Your task to perform on an android device: Open calendar and show me the fourth week of next month Image 0: 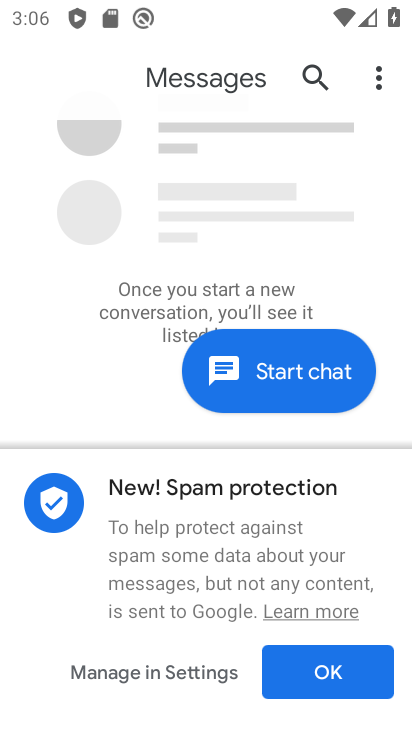
Step 0: press home button
Your task to perform on an android device: Open calendar and show me the fourth week of next month Image 1: 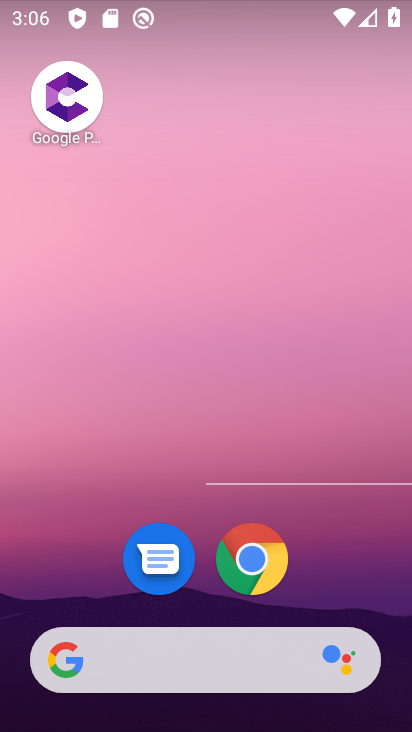
Step 1: drag from (214, 708) to (215, 168)
Your task to perform on an android device: Open calendar and show me the fourth week of next month Image 2: 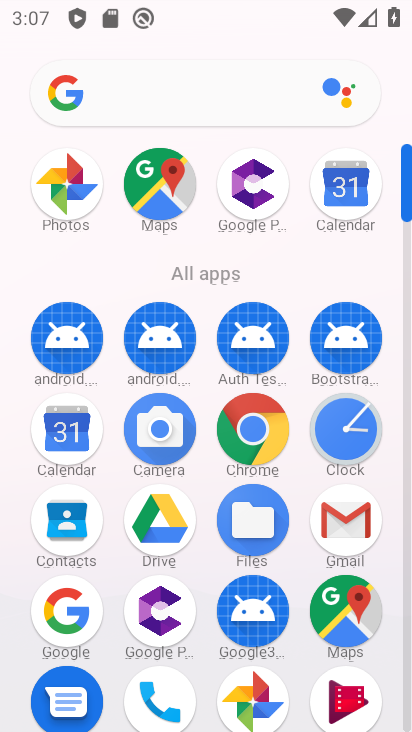
Step 2: click (71, 445)
Your task to perform on an android device: Open calendar and show me the fourth week of next month Image 3: 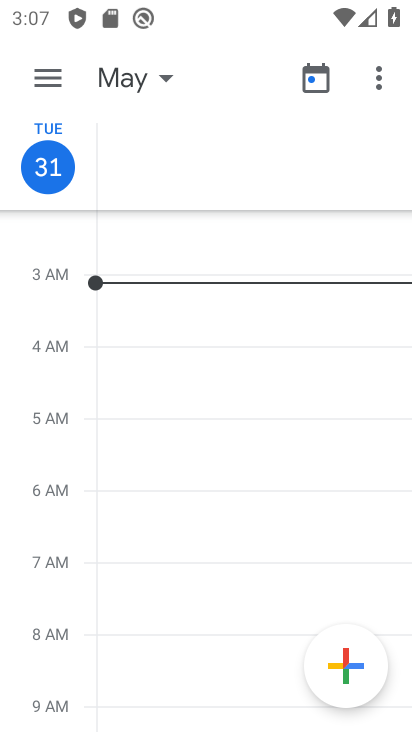
Step 3: click (160, 77)
Your task to perform on an android device: Open calendar and show me the fourth week of next month Image 4: 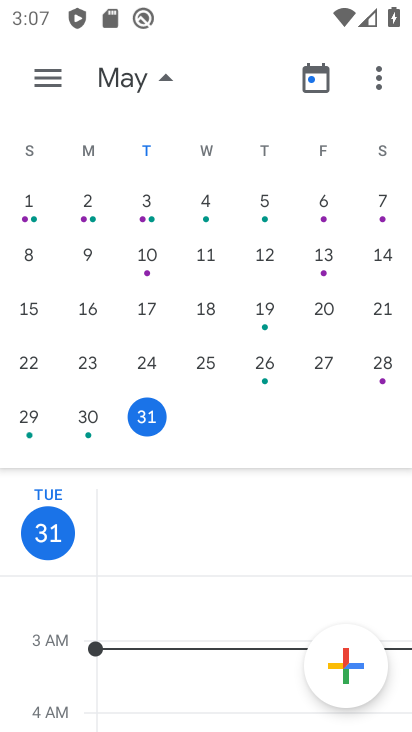
Step 4: drag from (343, 320) to (42, 278)
Your task to perform on an android device: Open calendar and show me the fourth week of next month Image 5: 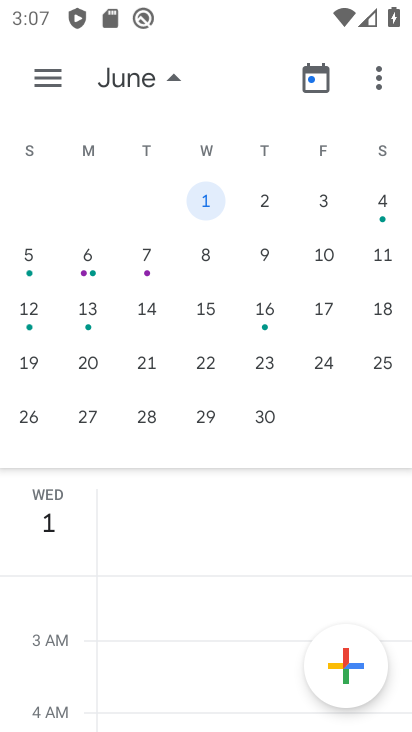
Step 5: click (88, 412)
Your task to perform on an android device: Open calendar and show me the fourth week of next month Image 6: 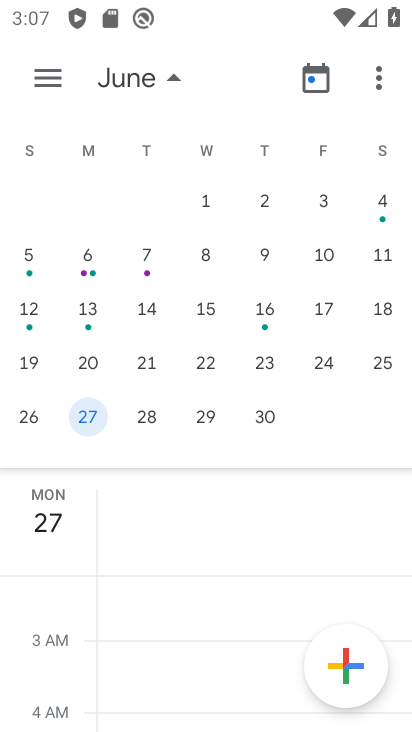
Step 6: click (43, 72)
Your task to perform on an android device: Open calendar and show me the fourth week of next month Image 7: 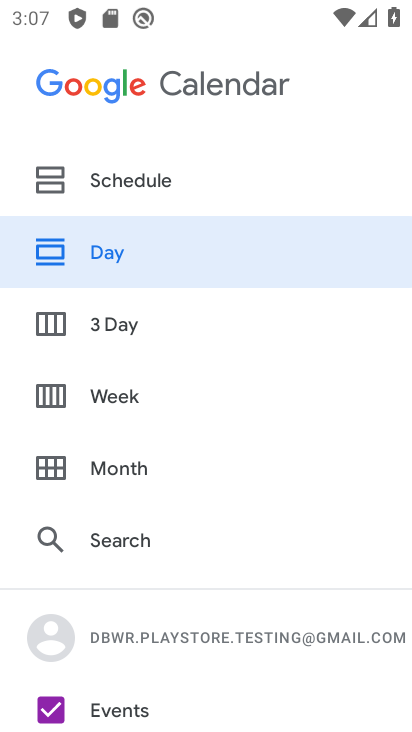
Step 7: click (107, 400)
Your task to perform on an android device: Open calendar and show me the fourth week of next month Image 8: 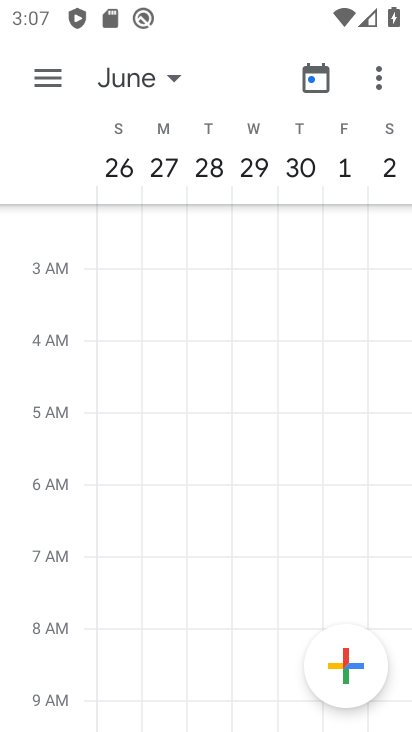
Step 8: task complete